Your task to perform on an android device: turn pop-ups on in chrome Image 0: 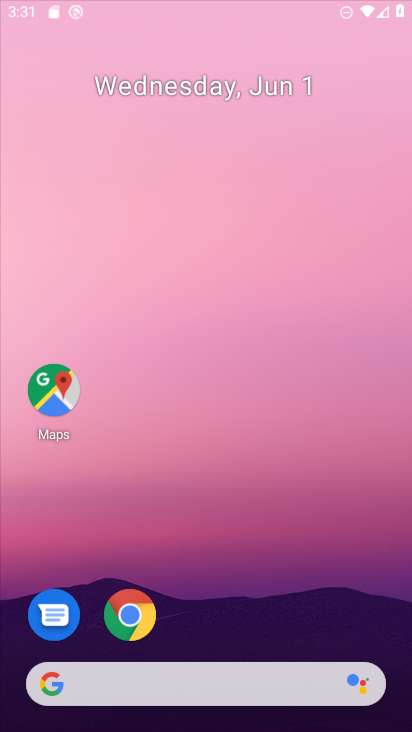
Step 0: press home button
Your task to perform on an android device: turn pop-ups on in chrome Image 1: 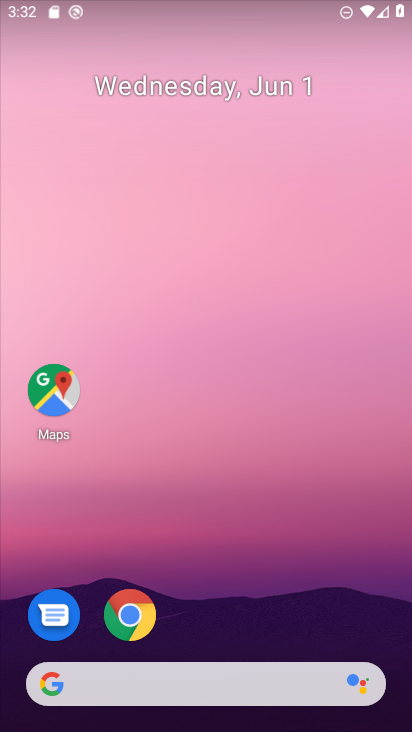
Step 1: click (127, 610)
Your task to perform on an android device: turn pop-ups on in chrome Image 2: 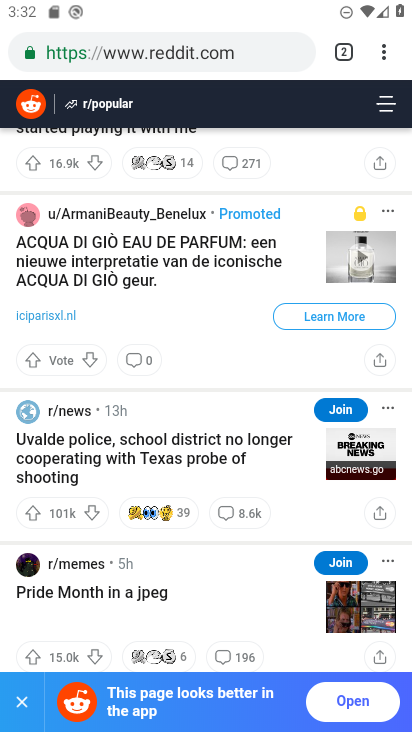
Step 2: click (380, 48)
Your task to perform on an android device: turn pop-ups on in chrome Image 3: 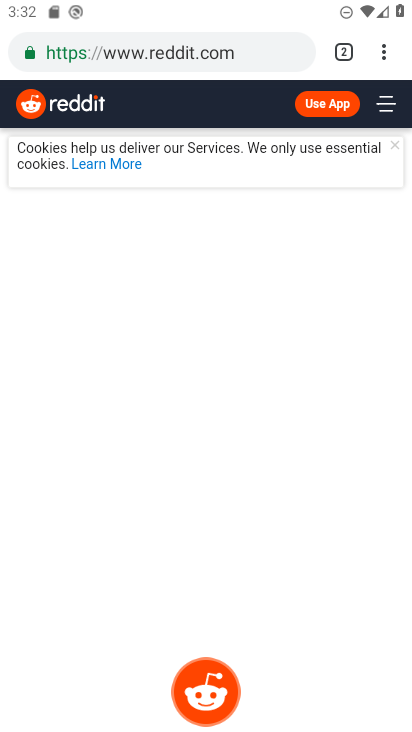
Step 3: click (380, 48)
Your task to perform on an android device: turn pop-ups on in chrome Image 4: 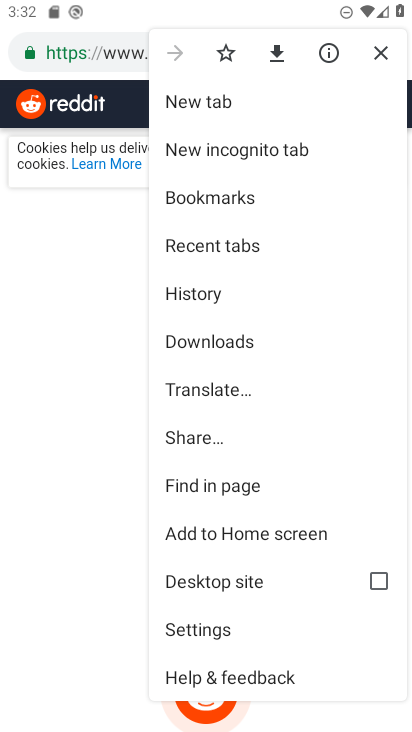
Step 4: click (232, 630)
Your task to perform on an android device: turn pop-ups on in chrome Image 5: 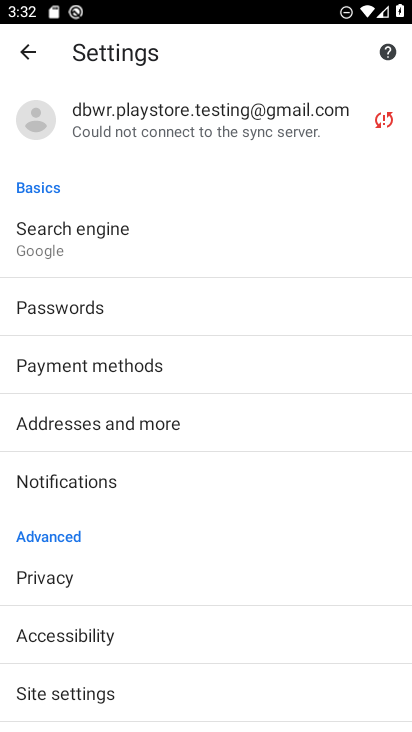
Step 5: click (153, 686)
Your task to perform on an android device: turn pop-ups on in chrome Image 6: 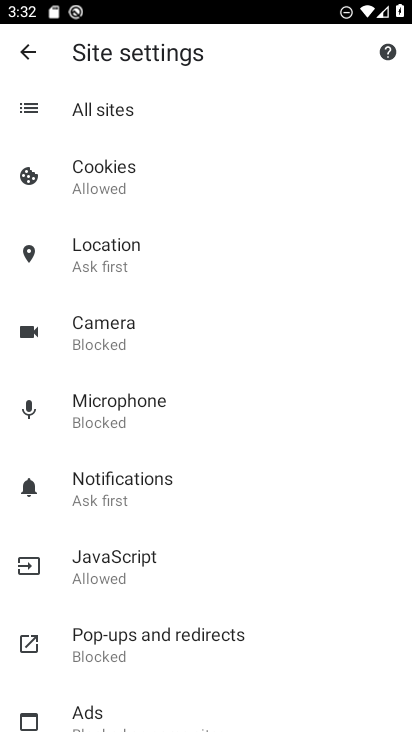
Step 6: click (175, 647)
Your task to perform on an android device: turn pop-ups on in chrome Image 7: 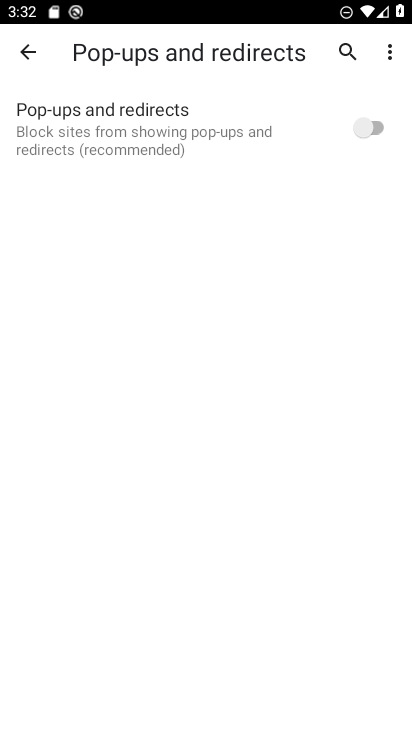
Step 7: click (375, 116)
Your task to perform on an android device: turn pop-ups on in chrome Image 8: 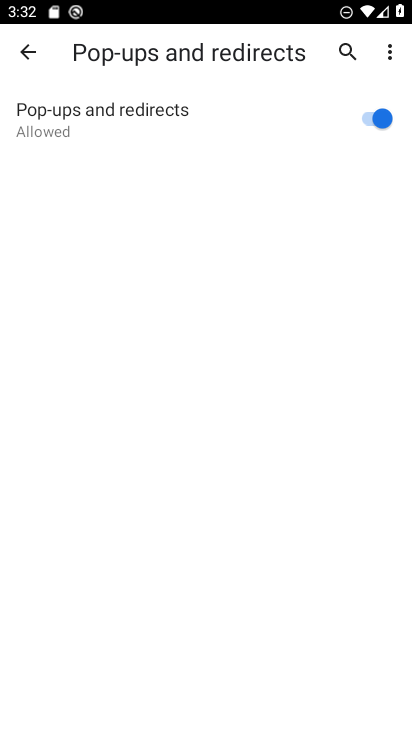
Step 8: task complete